Your task to perform on an android device: change notifications settings Image 0: 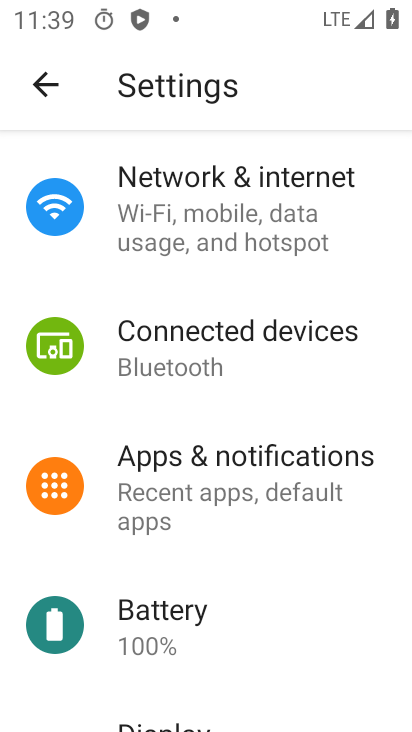
Step 0: click (239, 478)
Your task to perform on an android device: change notifications settings Image 1: 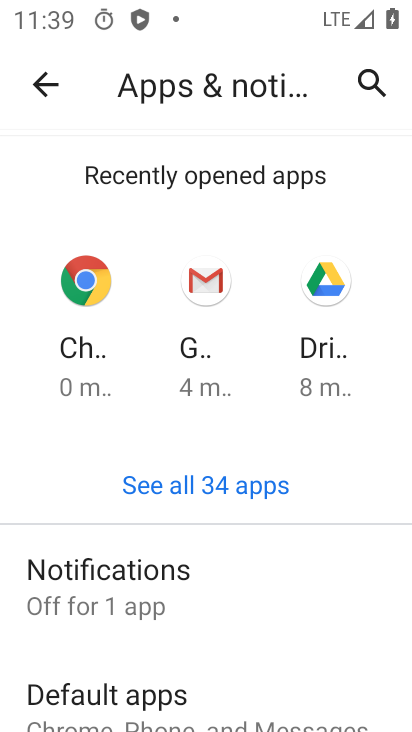
Step 1: drag from (235, 621) to (273, 361)
Your task to perform on an android device: change notifications settings Image 2: 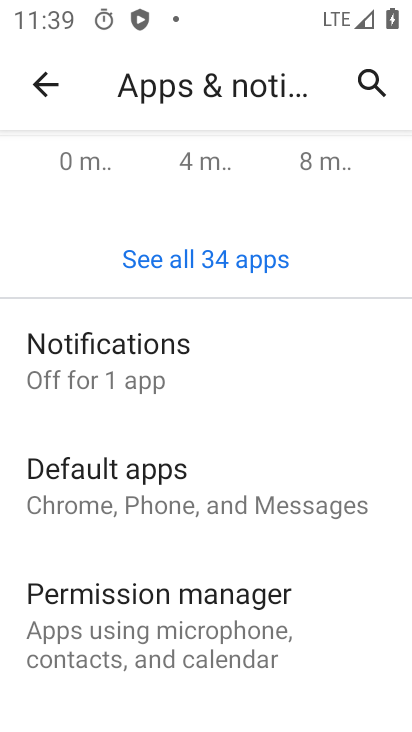
Step 2: click (165, 349)
Your task to perform on an android device: change notifications settings Image 3: 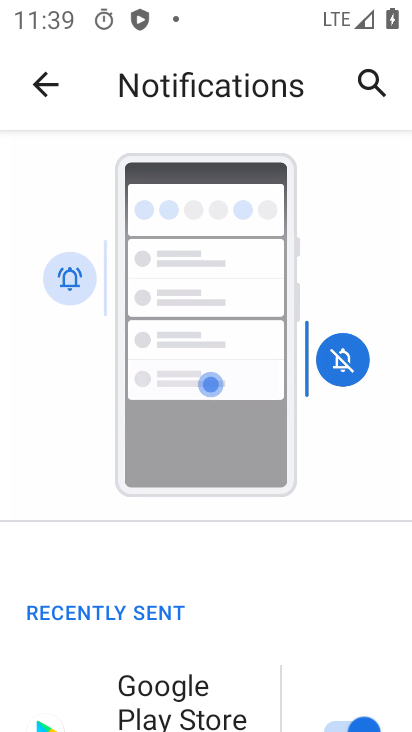
Step 3: drag from (264, 645) to (398, 149)
Your task to perform on an android device: change notifications settings Image 4: 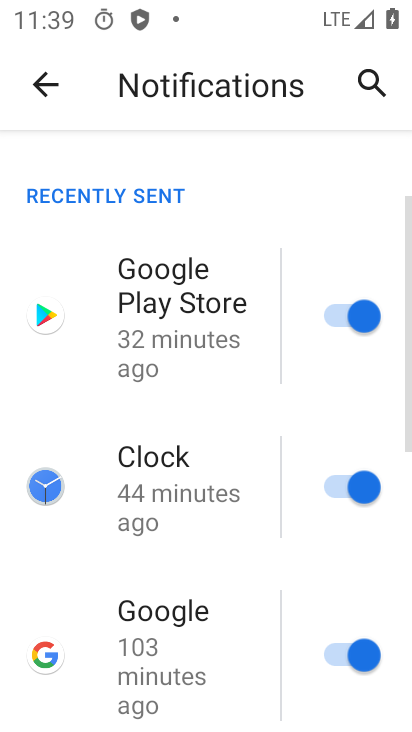
Step 4: drag from (176, 641) to (258, 320)
Your task to perform on an android device: change notifications settings Image 5: 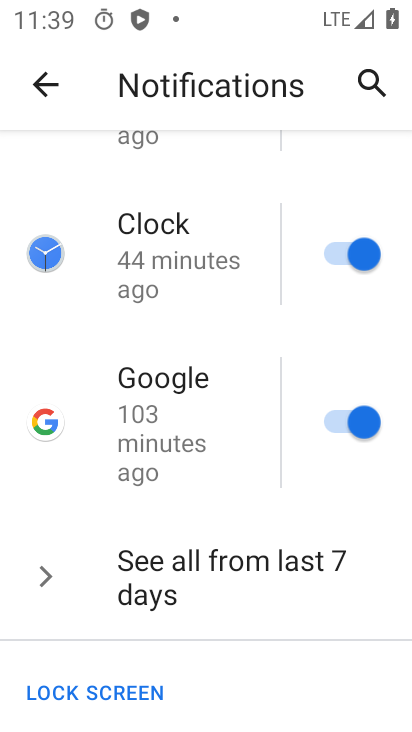
Step 5: click (160, 565)
Your task to perform on an android device: change notifications settings Image 6: 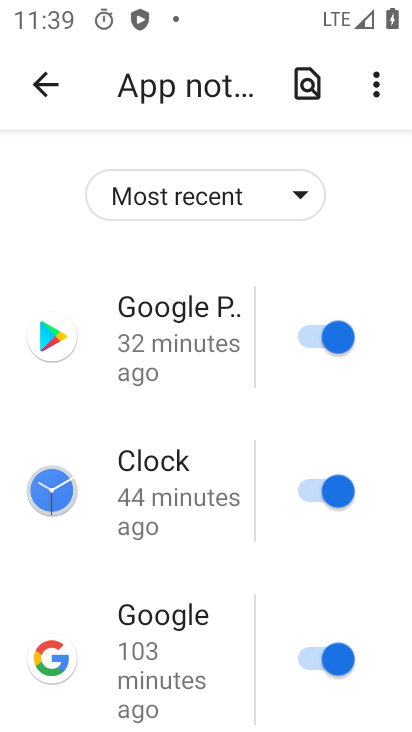
Step 6: click (299, 326)
Your task to perform on an android device: change notifications settings Image 7: 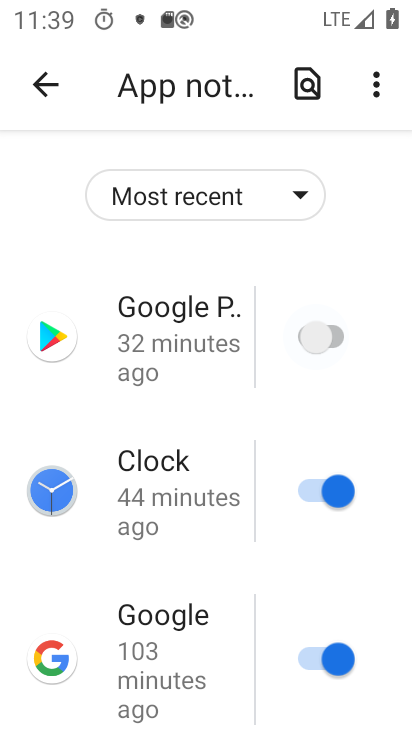
Step 7: click (299, 490)
Your task to perform on an android device: change notifications settings Image 8: 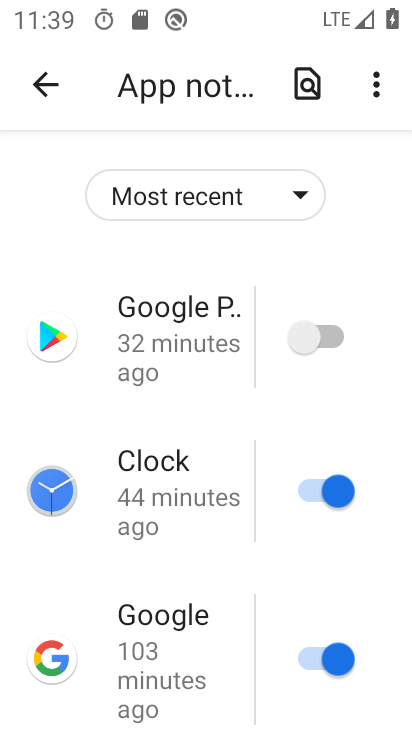
Step 8: drag from (140, 589) to (275, 233)
Your task to perform on an android device: change notifications settings Image 9: 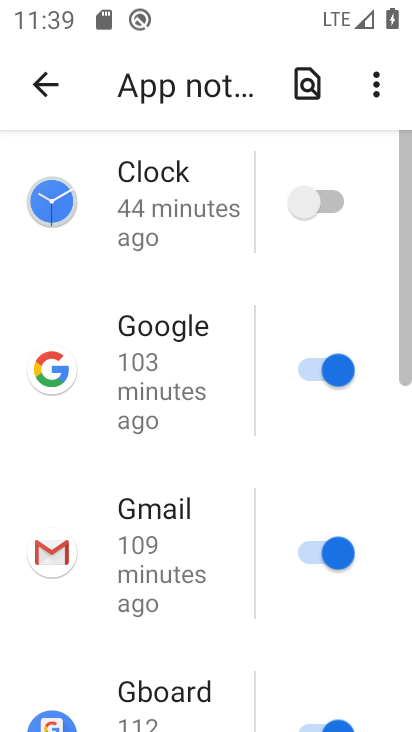
Step 9: click (316, 378)
Your task to perform on an android device: change notifications settings Image 10: 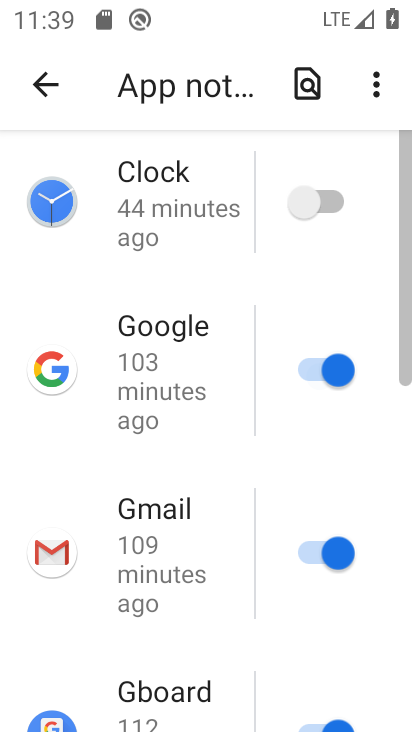
Step 10: click (280, 543)
Your task to perform on an android device: change notifications settings Image 11: 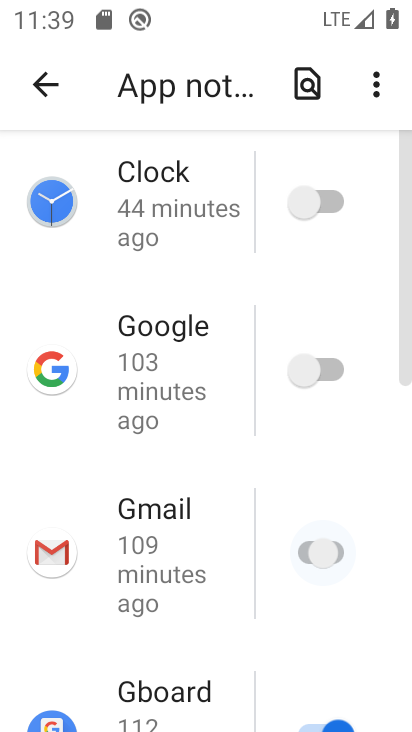
Step 11: drag from (139, 644) to (341, 135)
Your task to perform on an android device: change notifications settings Image 12: 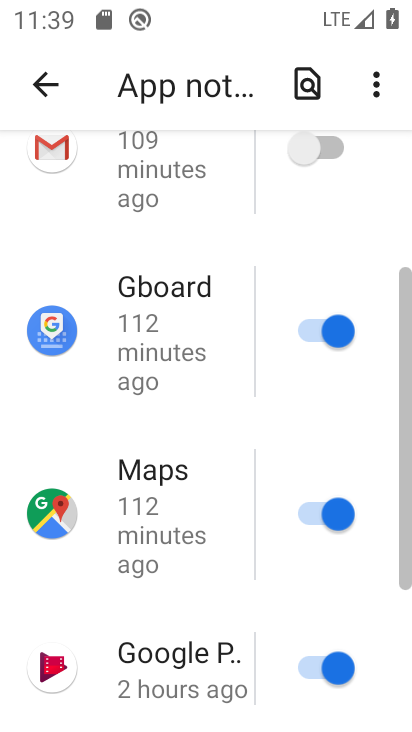
Step 12: click (284, 319)
Your task to perform on an android device: change notifications settings Image 13: 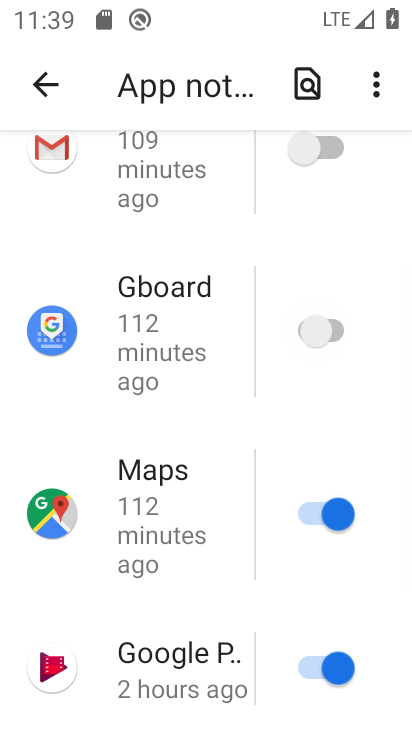
Step 13: click (305, 491)
Your task to perform on an android device: change notifications settings Image 14: 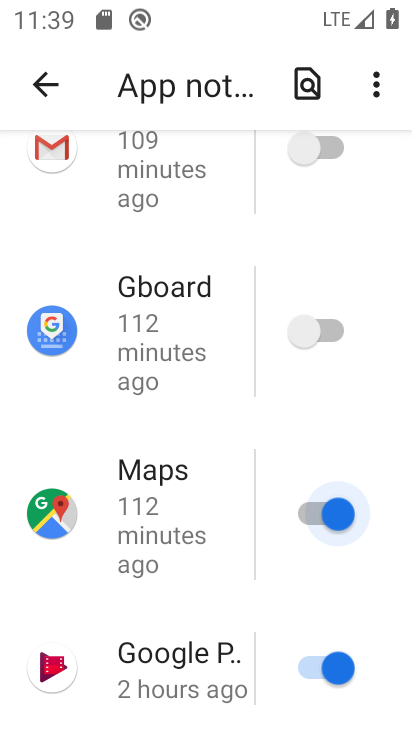
Step 14: click (318, 660)
Your task to perform on an android device: change notifications settings Image 15: 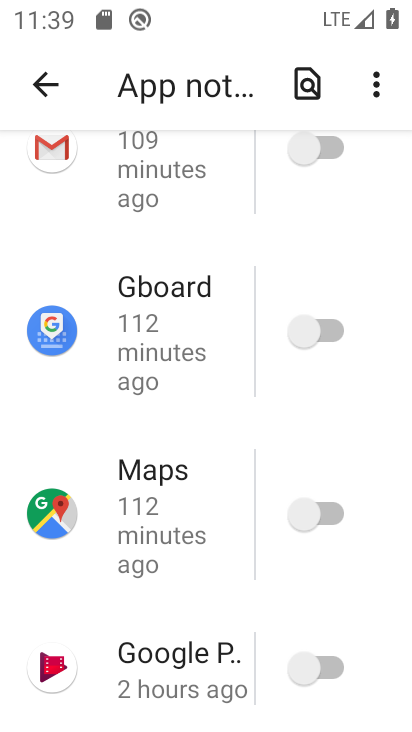
Step 15: drag from (244, 600) to (303, 150)
Your task to perform on an android device: change notifications settings Image 16: 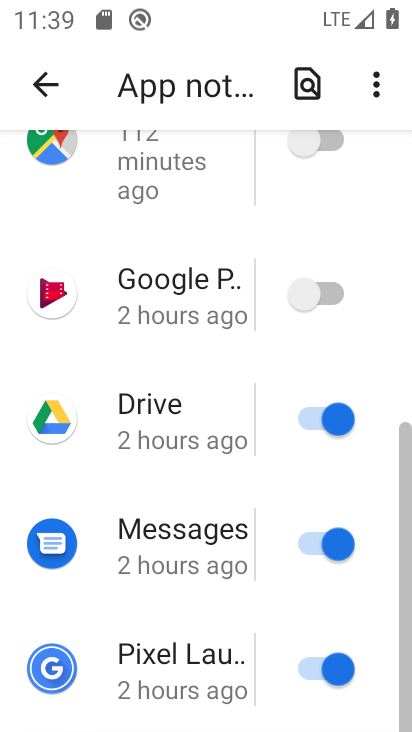
Step 16: drag from (246, 520) to (308, 203)
Your task to perform on an android device: change notifications settings Image 17: 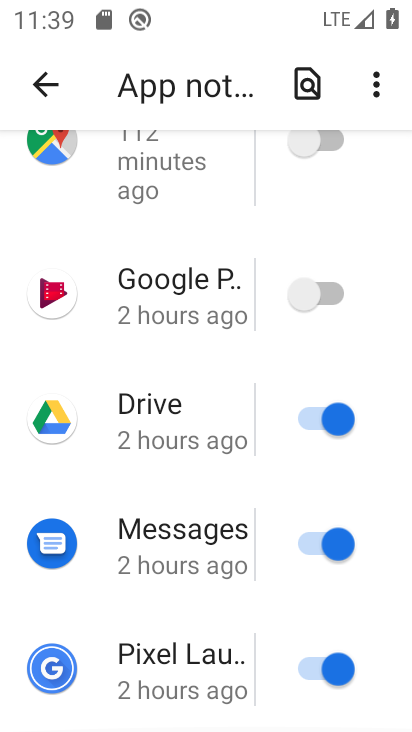
Step 17: click (308, 423)
Your task to perform on an android device: change notifications settings Image 18: 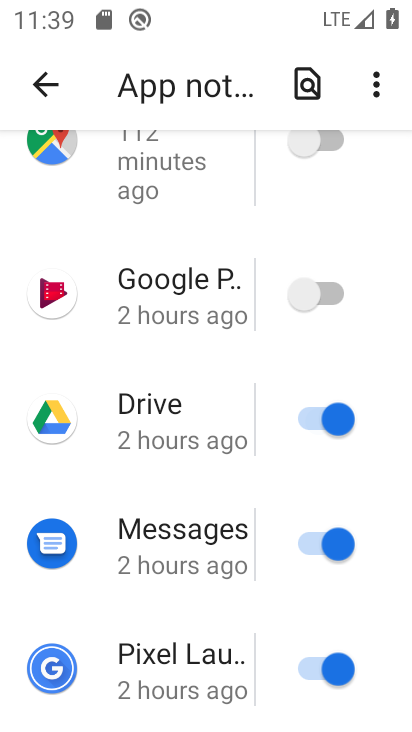
Step 18: click (305, 521)
Your task to perform on an android device: change notifications settings Image 19: 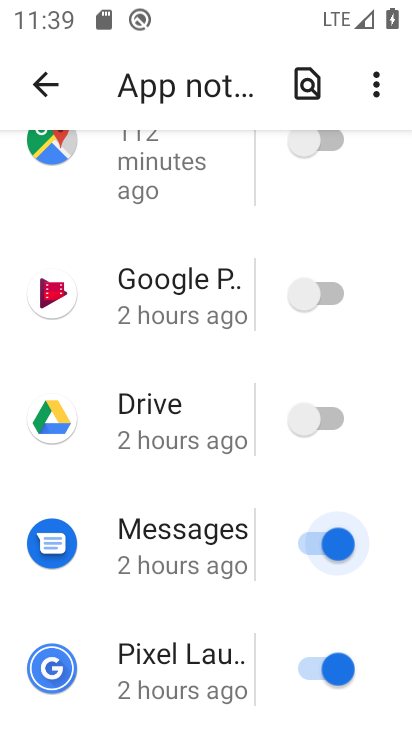
Step 19: click (302, 687)
Your task to perform on an android device: change notifications settings Image 20: 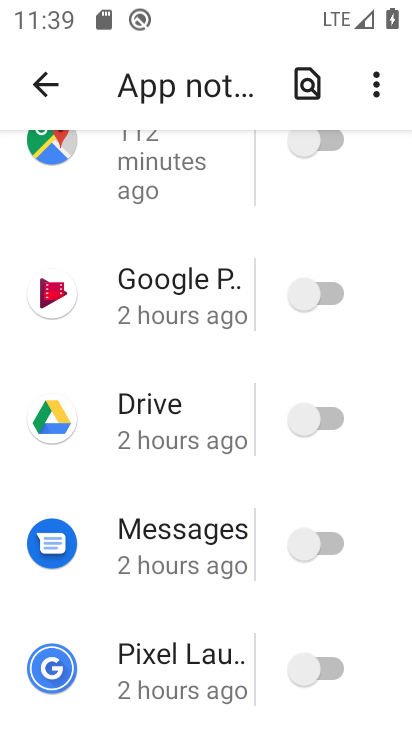
Step 20: task complete